Your task to perform on an android device: open a bookmark in the chrome app Image 0: 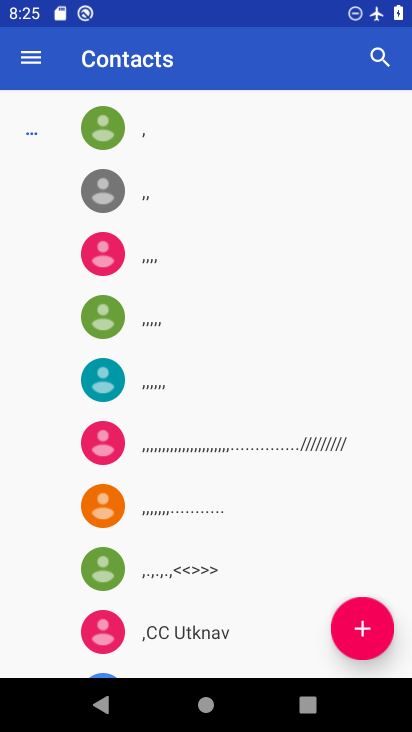
Step 0: press home button
Your task to perform on an android device: open a bookmark in the chrome app Image 1: 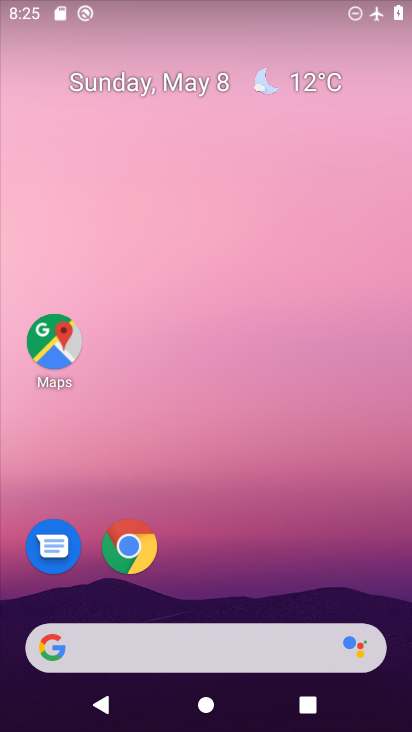
Step 1: drag from (288, 512) to (304, 42)
Your task to perform on an android device: open a bookmark in the chrome app Image 2: 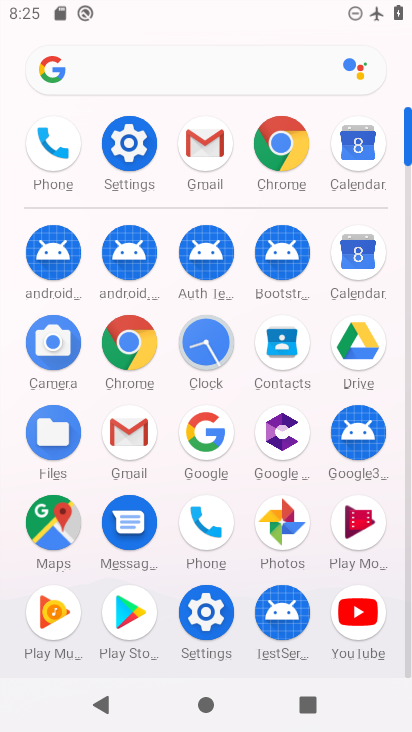
Step 2: click (280, 149)
Your task to perform on an android device: open a bookmark in the chrome app Image 3: 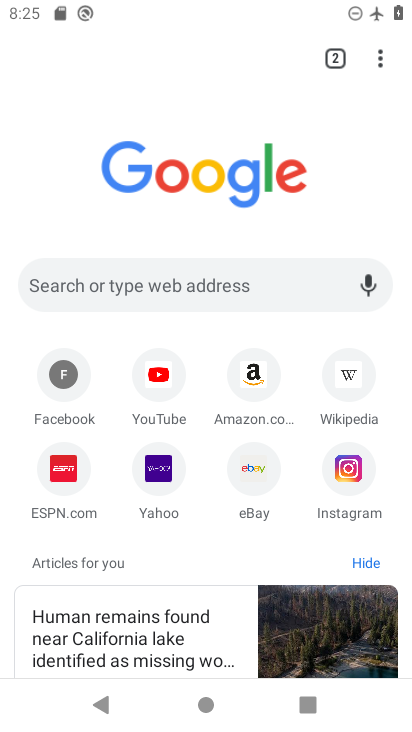
Step 3: drag from (384, 53) to (230, 215)
Your task to perform on an android device: open a bookmark in the chrome app Image 4: 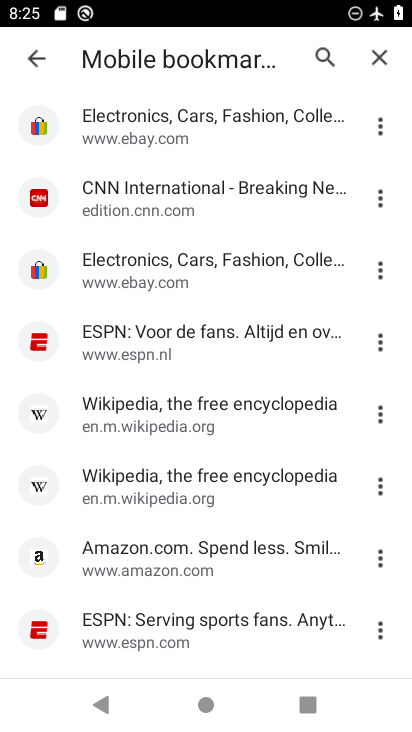
Step 4: click (269, 127)
Your task to perform on an android device: open a bookmark in the chrome app Image 5: 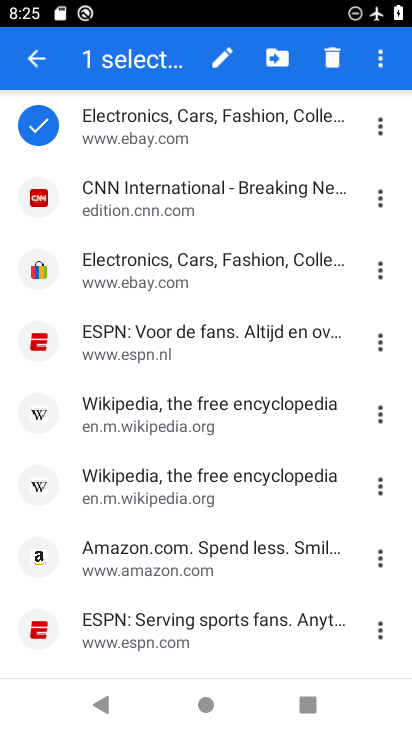
Step 5: click (336, 56)
Your task to perform on an android device: open a bookmark in the chrome app Image 6: 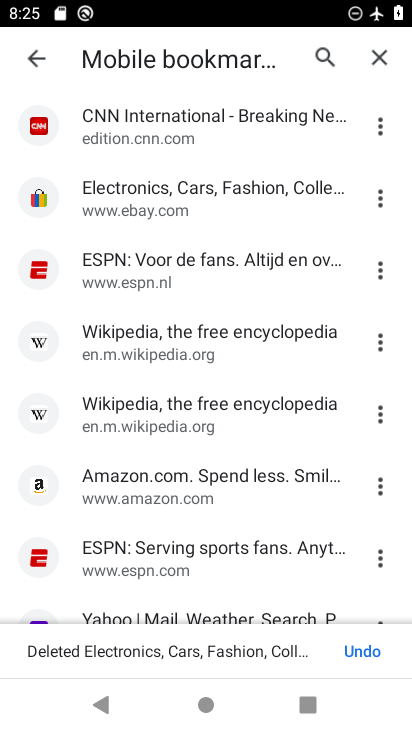
Step 6: task complete